Your task to perform on an android device: open app "Adobe Acrobat Reader" (install if not already installed) and go to login screen Image 0: 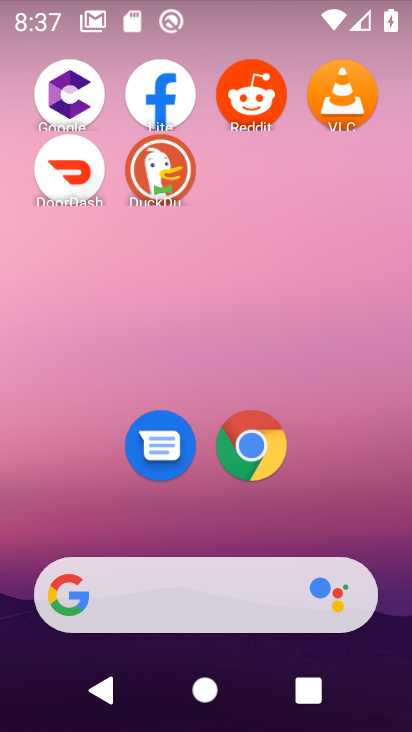
Step 0: drag from (244, 535) to (246, 18)
Your task to perform on an android device: open app "Adobe Acrobat Reader" (install if not already installed) and go to login screen Image 1: 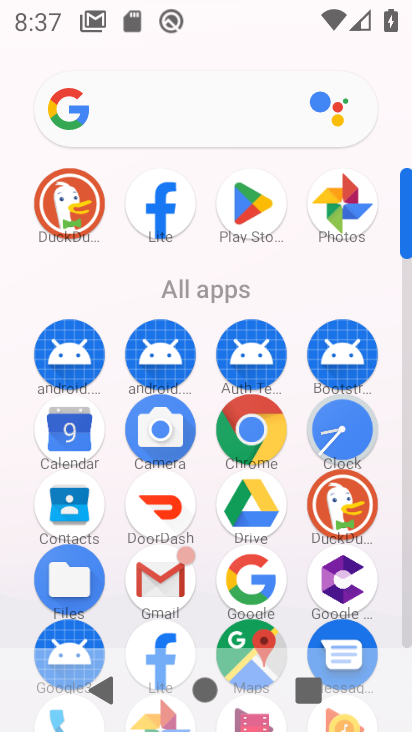
Step 1: click (256, 212)
Your task to perform on an android device: open app "Adobe Acrobat Reader" (install if not already installed) and go to login screen Image 2: 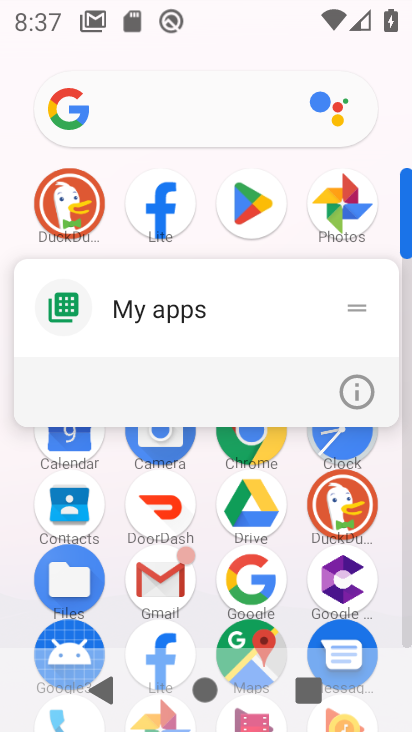
Step 2: click (228, 224)
Your task to perform on an android device: open app "Adobe Acrobat Reader" (install if not already installed) and go to login screen Image 3: 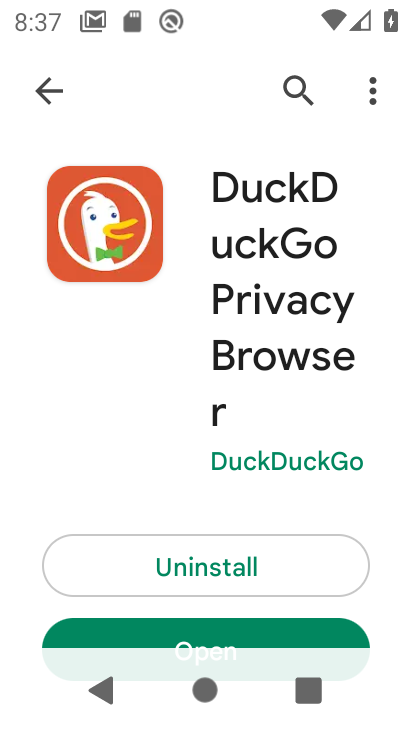
Step 3: click (41, 84)
Your task to perform on an android device: open app "Adobe Acrobat Reader" (install if not already installed) and go to login screen Image 4: 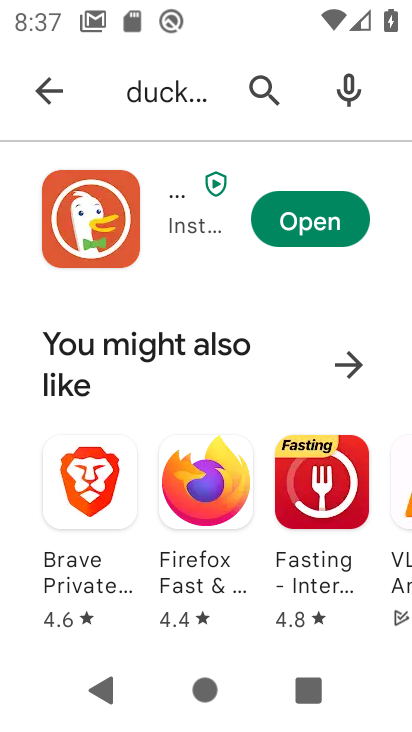
Step 4: click (249, 89)
Your task to perform on an android device: open app "Adobe Acrobat Reader" (install if not already installed) and go to login screen Image 5: 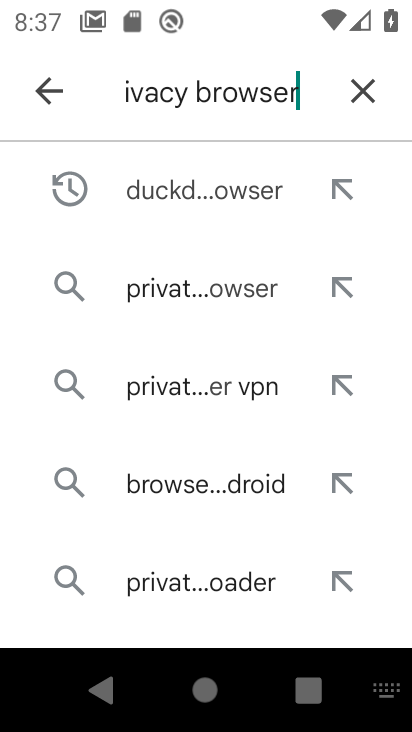
Step 5: click (361, 89)
Your task to perform on an android device: open app "Adobe Acrobat Reader" (install if not already installed) and go to login screen Image 6: 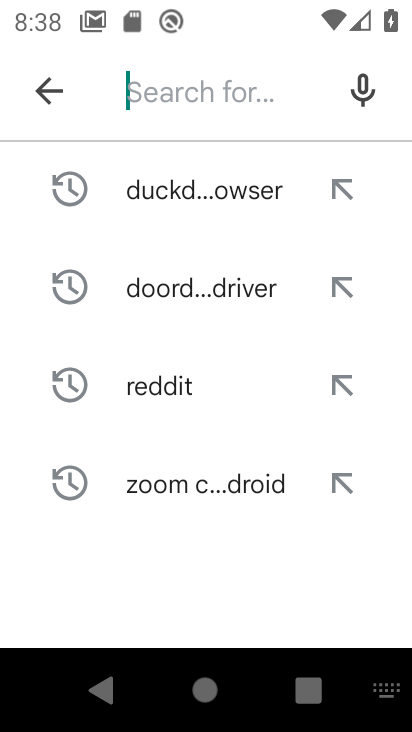
Step 6: type "Adobe Acrobat Reader"
Your task to perform on an android device: open app "Adobe Acrobat Reader" (install if not already installed) and go to login screen Image 7: 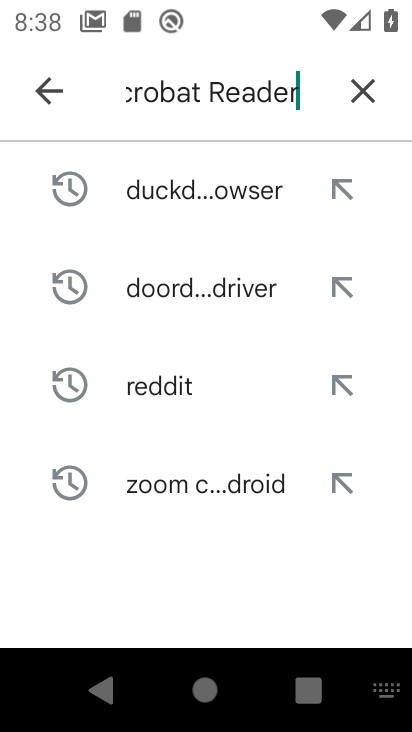
Step 7: type ""
Your task to perform on an android device: open app "Adobe Acrobat Reader" (install if not already installed) and go to login screen Image 8: 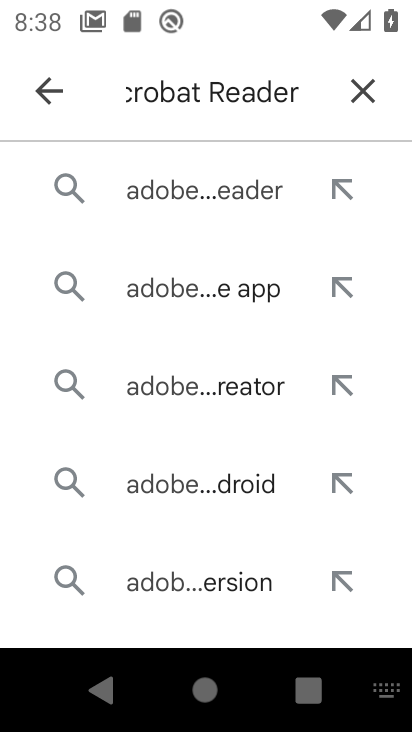
Step 8: click (194, 196)
Your task to perform on an android device: open app "Adobe Acrobat Reader" (install if not already installed) and go to login screen Image 9: 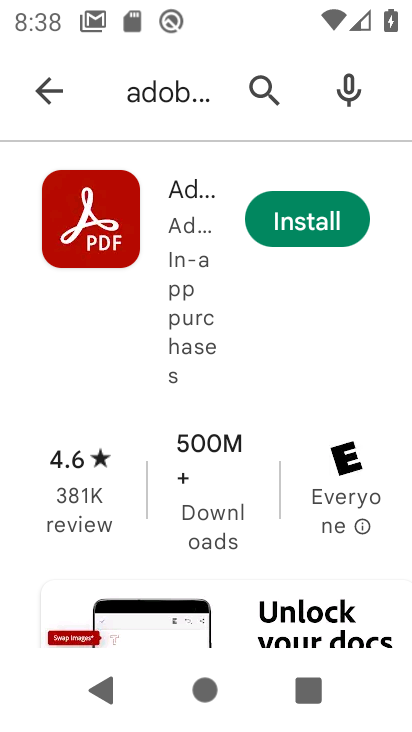
Step 9: click (325, 231)
Your task to perform on an android device: open app "Adobe Acrobat Reader" (install if not already installed) and go to login screen Image 10: 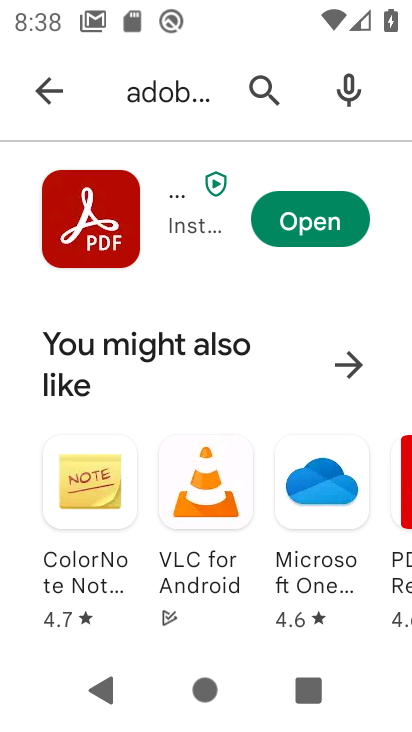
Step 10: click (331, 244)
Your task to perform on an android device: open app "Adobe Acrobat Reader" (install if not already installed) and go to login screen Image 11: 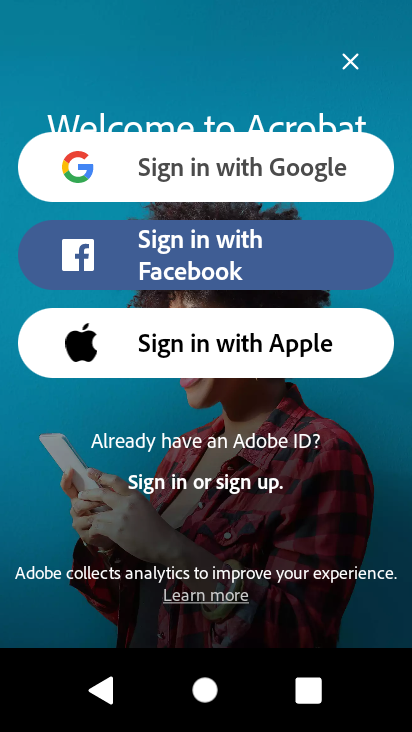
Step 11: click (264, 442)
Your task to perform on an android device: open app "Adobe Acrobat Reader" (install if not already installed) and go to login screen Image 12: 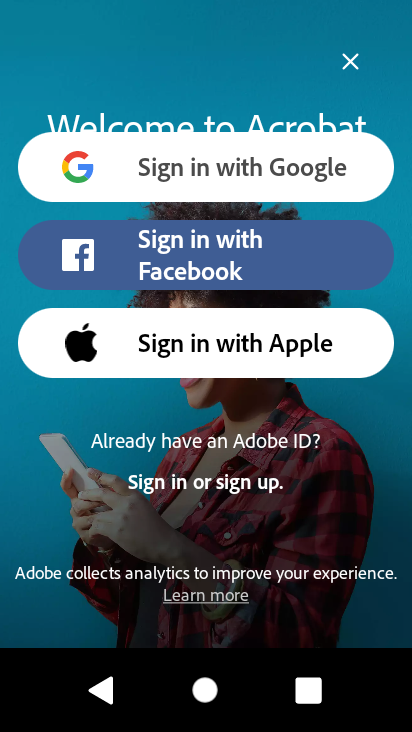
Step 12: click (300, 442)
Your task to perform on an android device: open app "Adobe Acrobat Reader" (install if not already installed) and go to login screen Image 13: 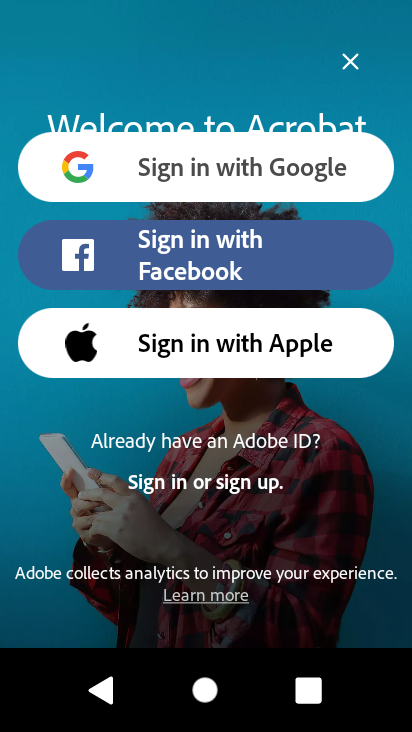
Step 13: click (309, 442)
Your task to perform on an android device: open app "Adobe Acrobat Reader" (install if not already installed) and go to login screen Image 14: 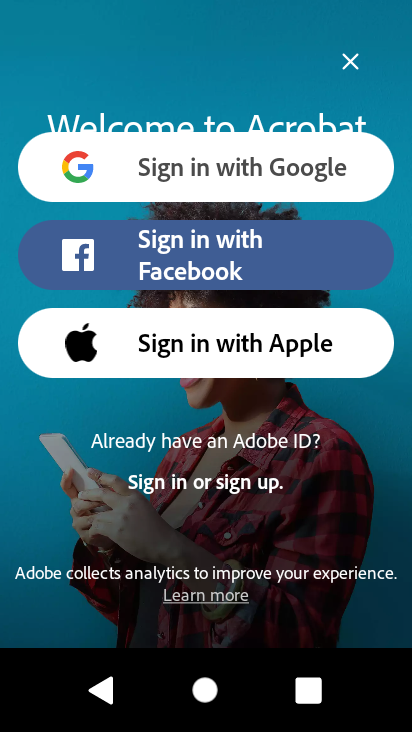
Step 14: click (175, 485)
Your task to perform on an android device: open app "Adobe Acrobat Reader" (install if not already installed) and go to login screen Image 15: 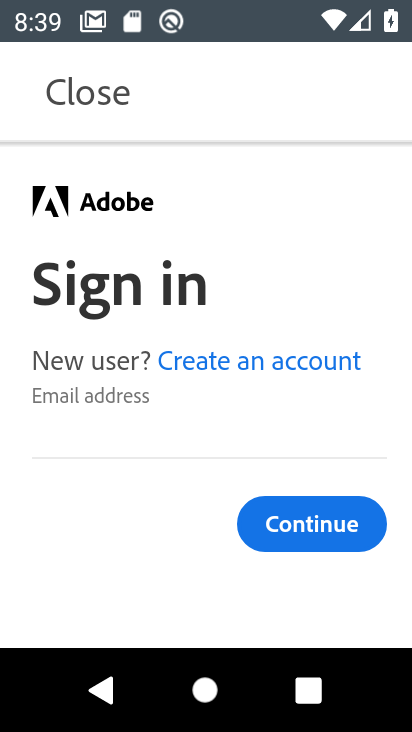
Step 15: click (317, 527)
Your task to perform on an android device: open app "Adobe Acrobat Reader" (install if not already installed) and go to login screen Image 16: 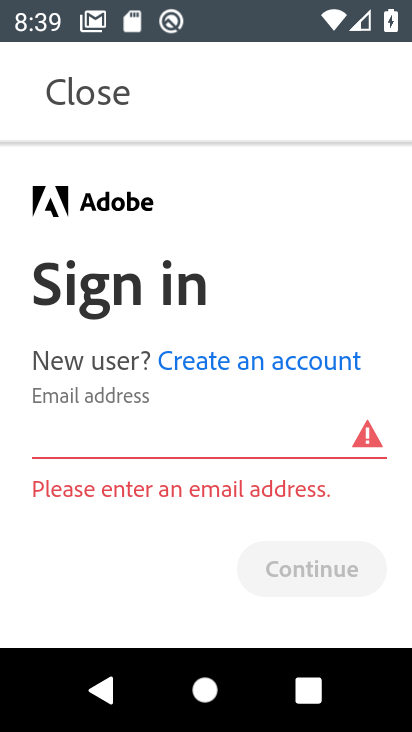
Step 16: click (64, 89)
Your task to perform on an android device: open app "Adobe Acrobat Reader" (install if not already installed) and go to login screen Image 17: 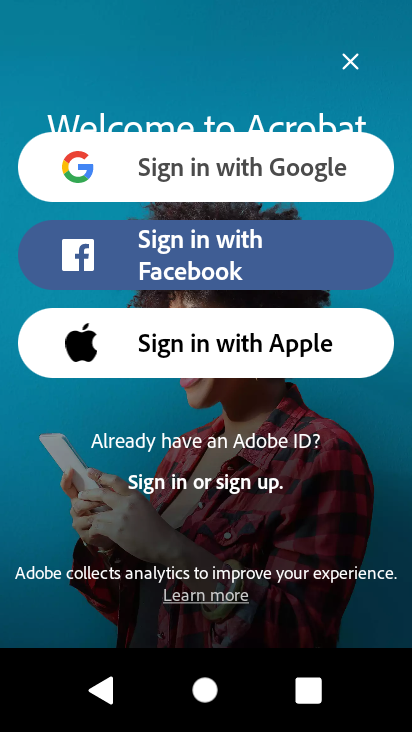
Step 17: task complete